Your task to perform on an android device: Play the last video I watched on Youtube Image 0: 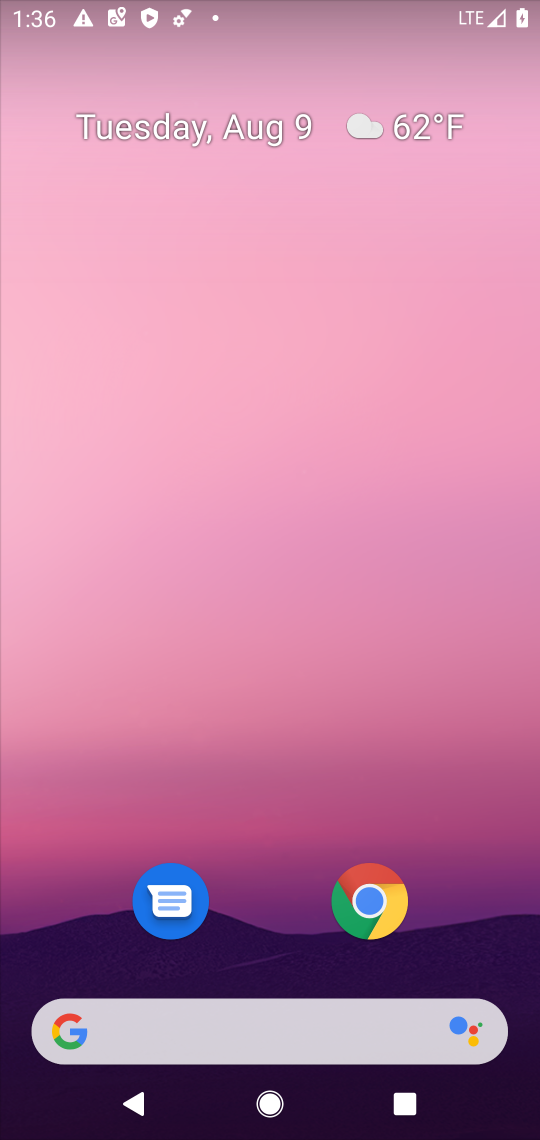
Step 0: drag from (507, 975) to (489, 247)
Your task to perform on an android device: Play the last video I watched on Youtube Image 1: 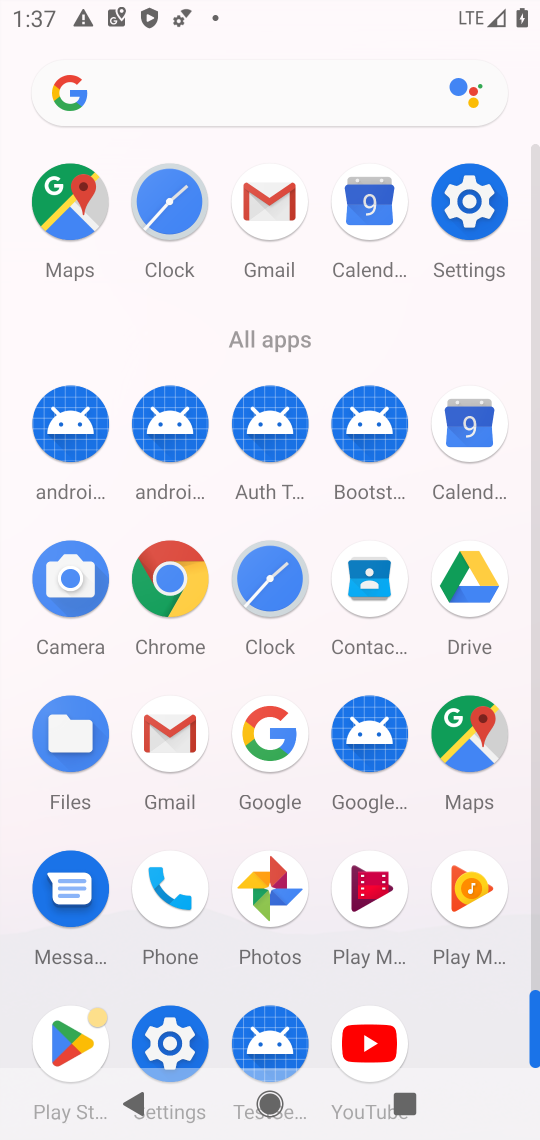
Step 1: click (373, 1042)
Your task to perform on an android device: Play the last video I watched on Youtube Image 2: 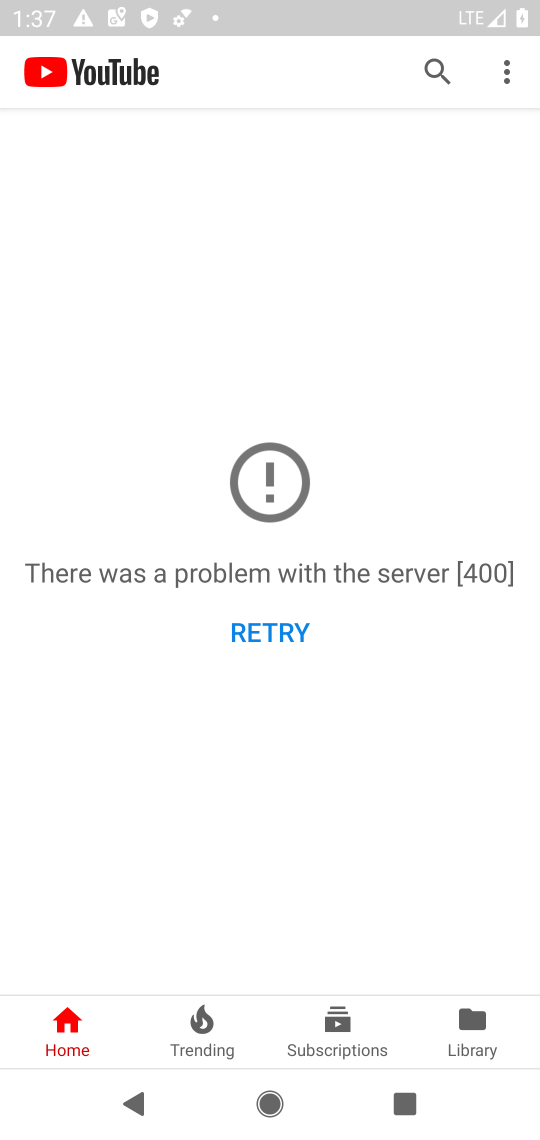
Step 2: click (274, 623)
Your task to perform on an android device: Play the last video I watched on Youtube Image 3: 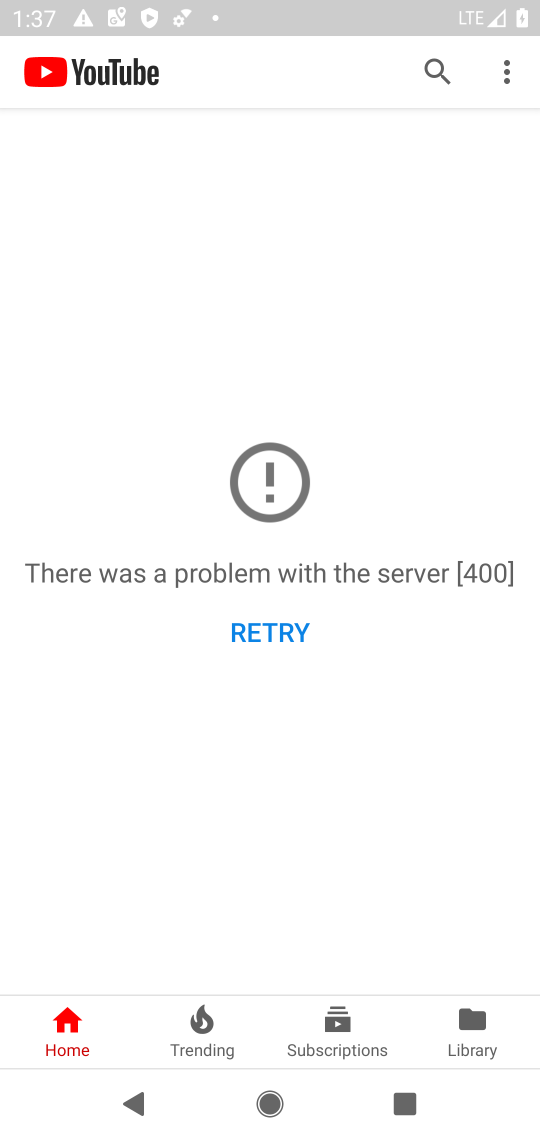
Step 3: click (465, 1015)
Your task to perform on an android device: Play the last video I watched on Youtube Image 4: 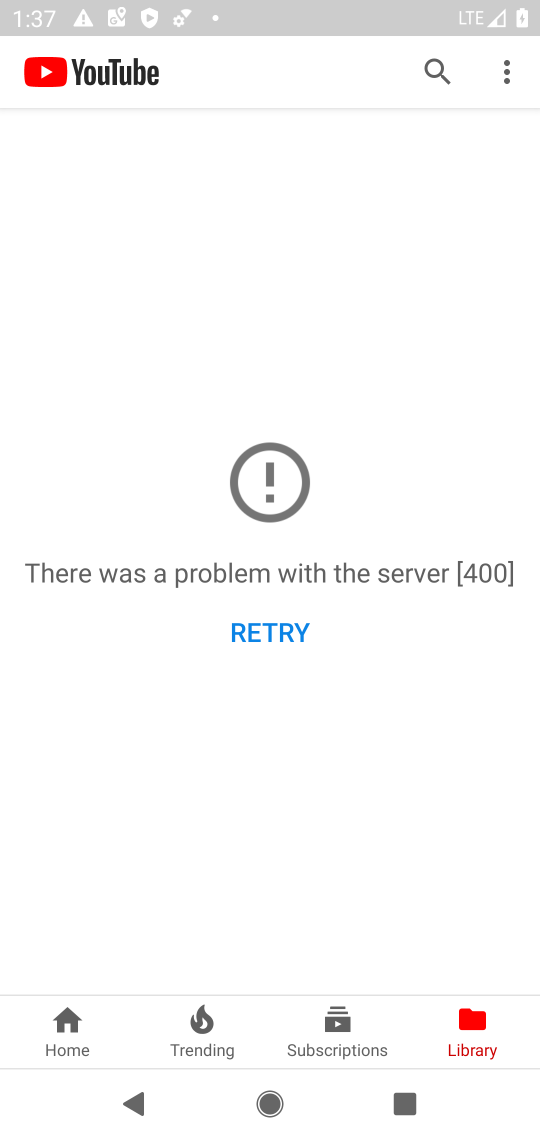
Step 4: click (274, 631)
Your task to perform on an android device: Play the last video I watched on Youtube Image 5: 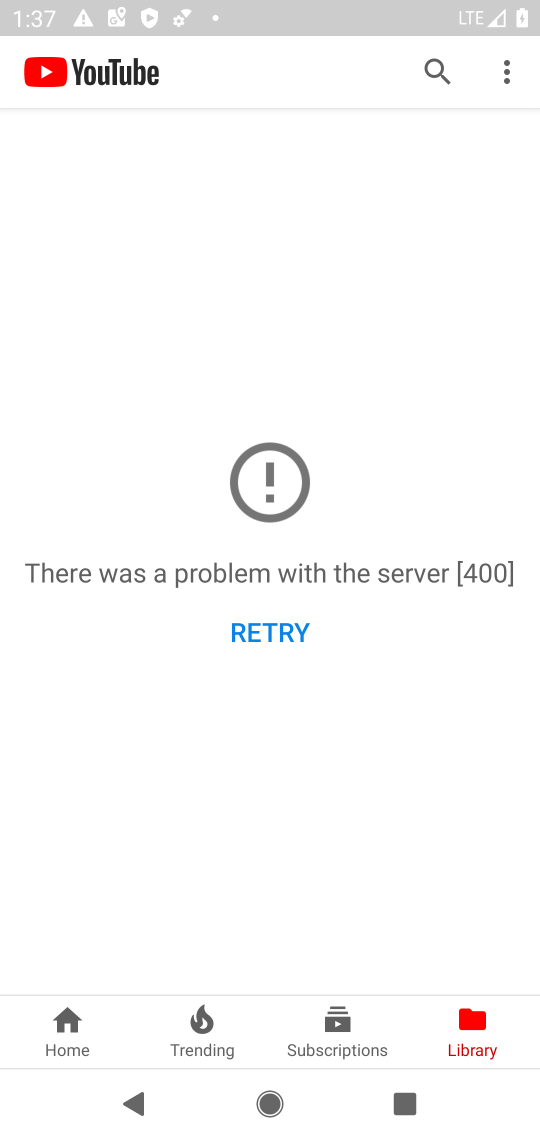
Step 5: click (274, 631)
Your task to perform on an android device: Play the last video I watched on Youtube Image 6: 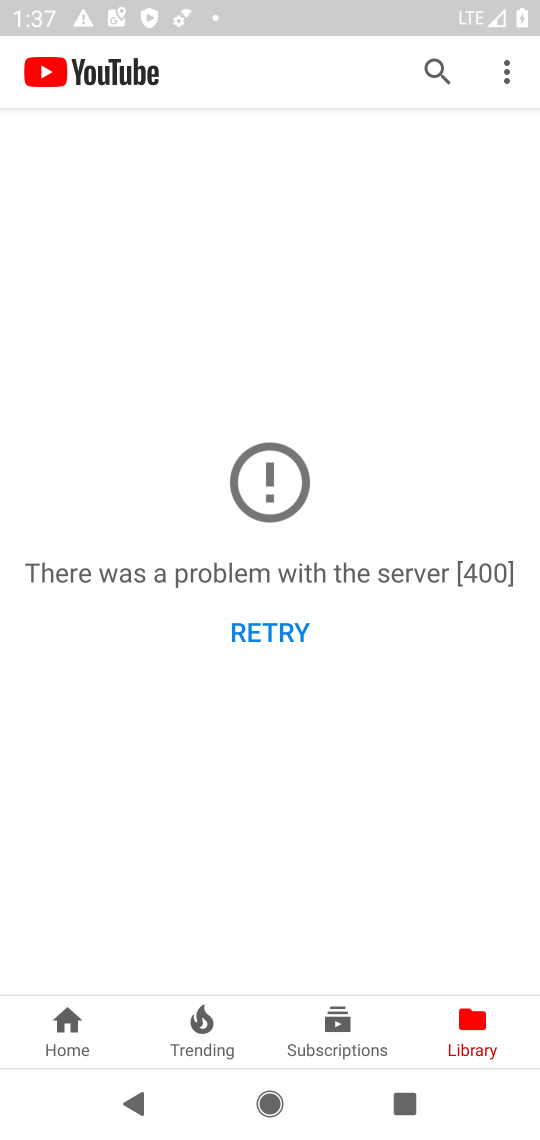
Step 6: task complete